Your task to perform on an android device: add a label to a message in the gmail app Image 0: 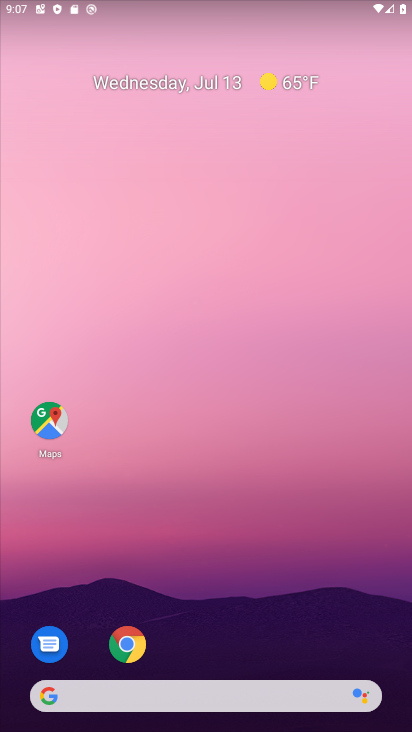
Step 0: drag from (265, 586) to (265, 65)
Your task to perform on an android device: add a label to a message in the gmail app Image 1: 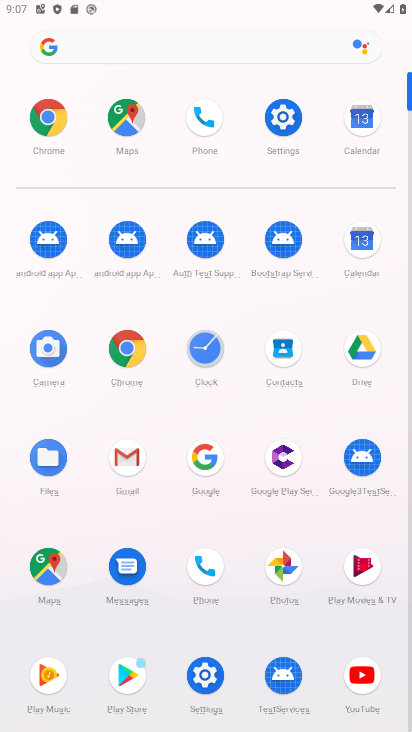
Step 1: click (130, 449)
Your task to perform on an android device: add a label to a message in the gmail app Image 2: 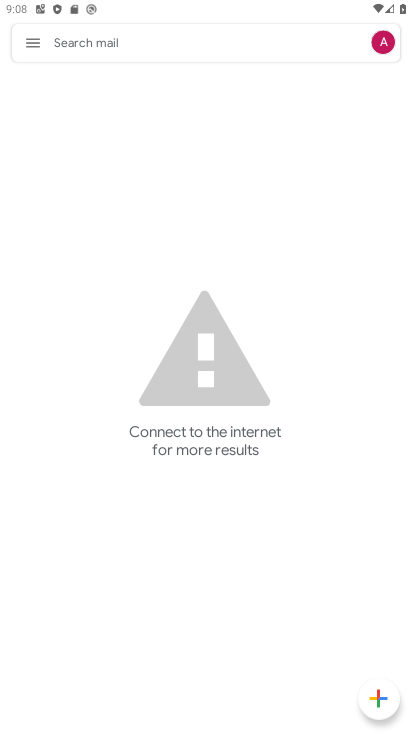
Step 2: click (36, 40)
Your task to perform on an android device: add a label to a message in the gmail app Image 3: 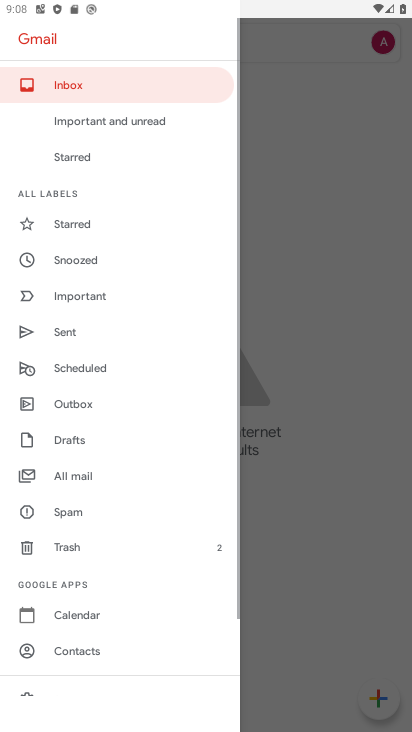
Step 3: click (62, 78)
Your task to perform on an android device: add a label to a message in the gmail app Image 4: 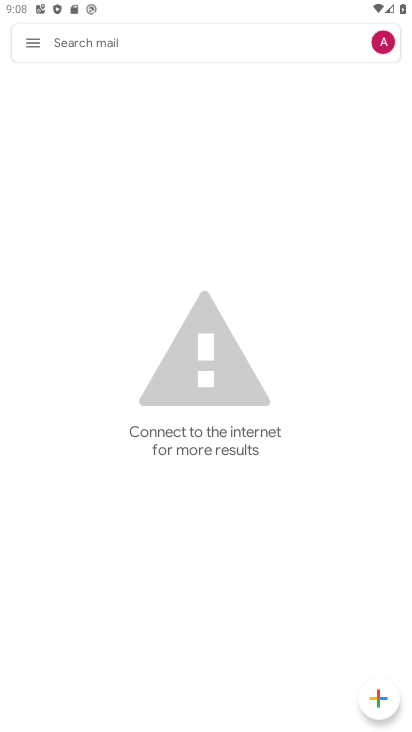
Step 4: task complete